Your task to perform on an android device: Open the Play Movies app and select the watchlist tab. Image 0: 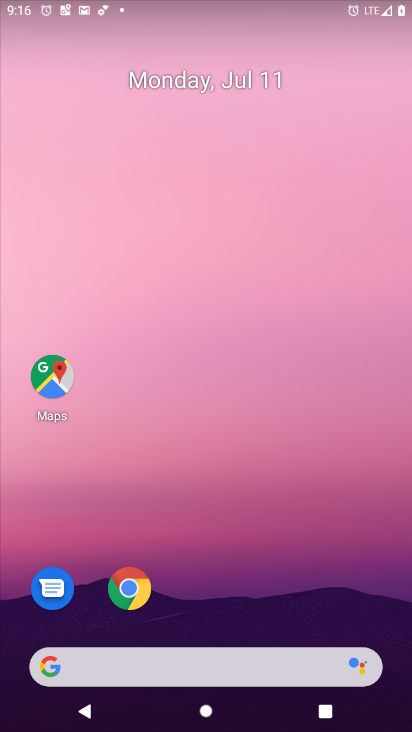
Step 0: drag from (191, 657) to (362, 54)
Your task to perform on an android device: Open the Play Movies app and select the watchlist tab. Image 1: 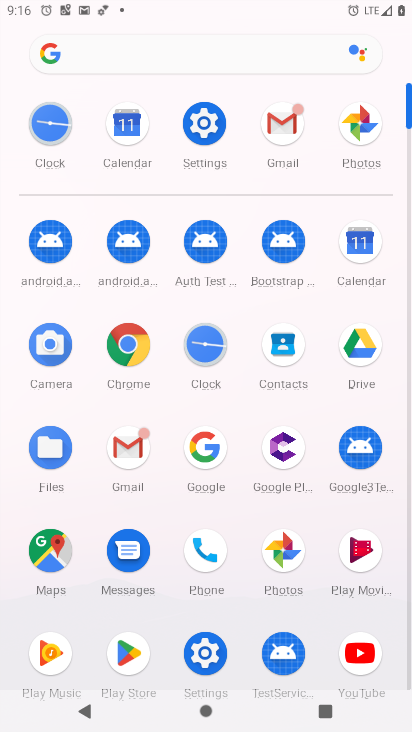
Step 1: click (356, 555)
Your task to perform on an android device: Open the Play Movies app and select the watchlist tab. Image 2: 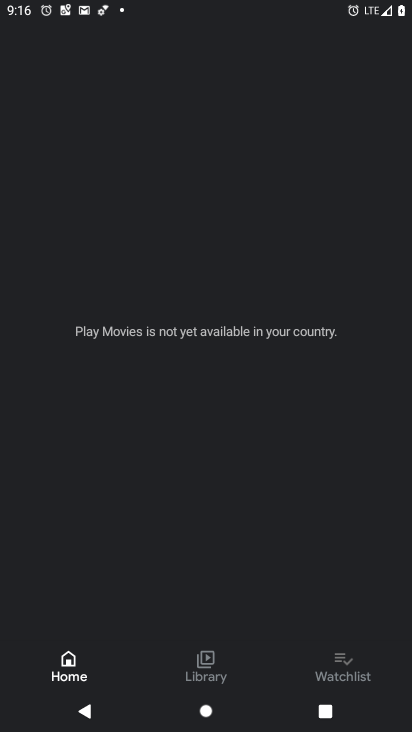
Step 2: click (346, 669)
Your task to perform on an android device: Open the Play Movies app and select the watchlist tab. Image 3: 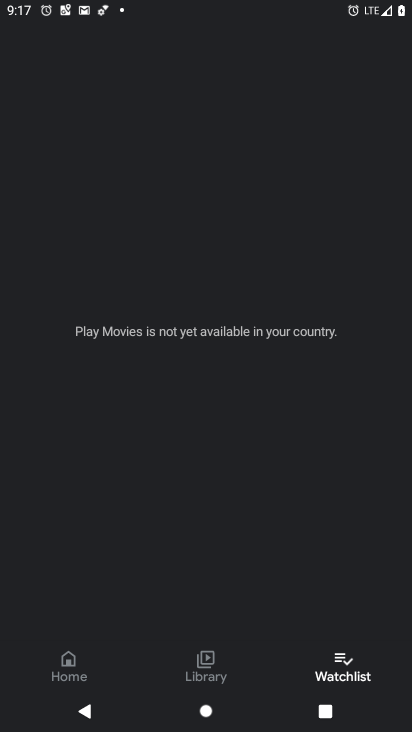
Step 3: task complete